Your task to perform on an android device: add a contact in the contacts app Image 0: 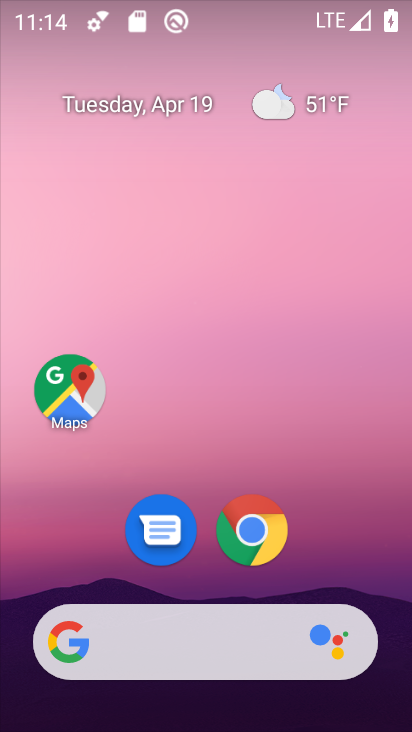
Step 0: drag from (182, 629) to (283, 76)
Your task to perform on an android device: add a contact in the contacts app Image 1: 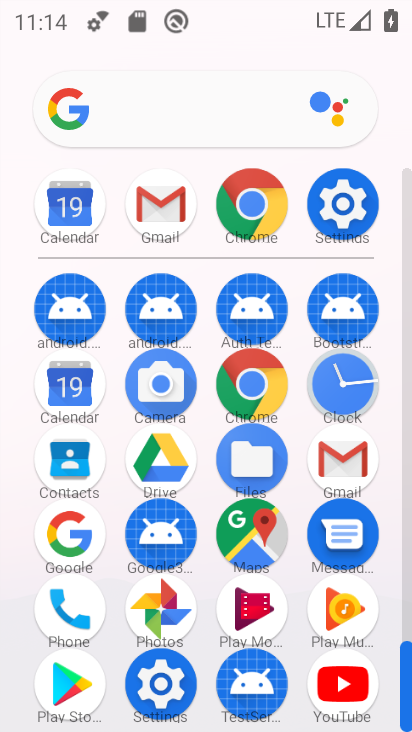
Step 1: click (58, 470)
Your task to perform on an android device: add a contact in the contacts app Image 2: 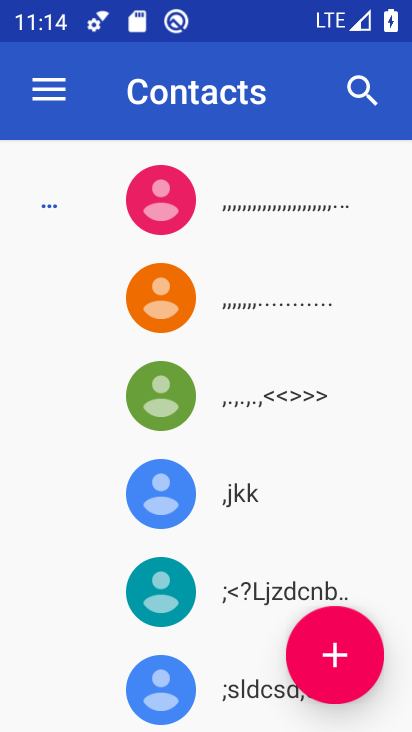
Step 2: click (338, 664)
Your task to perform on an android device: add a contact in the contacts app Image 3: 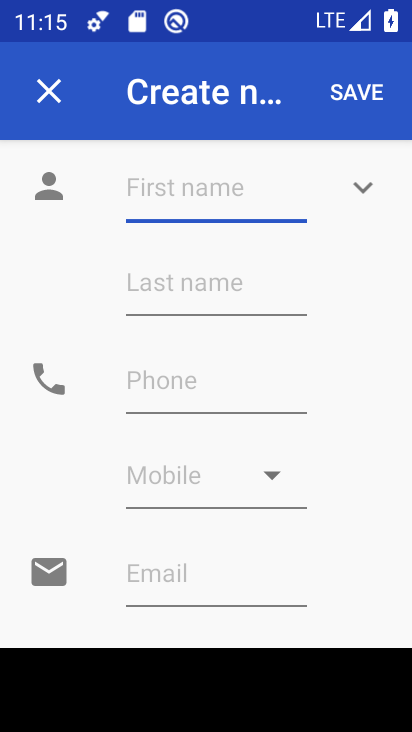
Step 3: type "vfghtyr"
Your task to perform on an android device: add a contact in the contacts app Image 4: 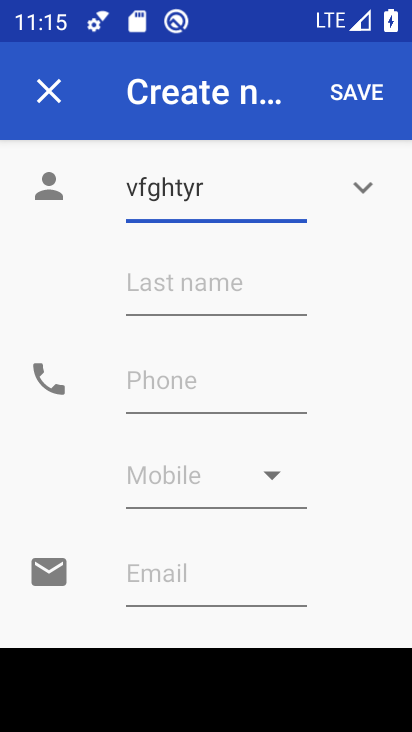
Step 4: click (136, 383)
Your task to perform on an android device: add a contact in the contacts app Image 5: 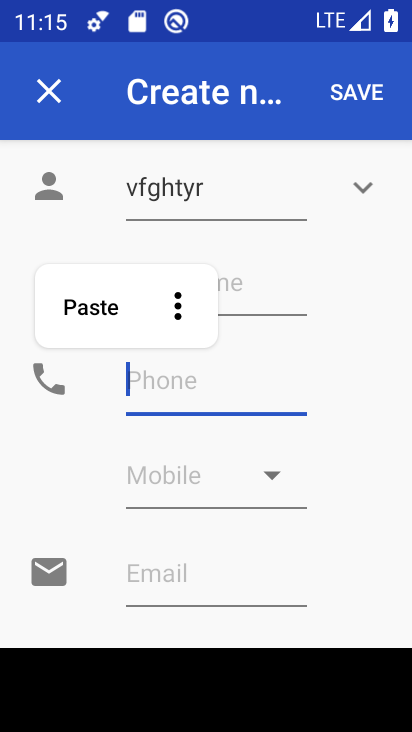
Step 5: type "65987986"
Your task to perform on an android device: add a contact in the contacts app Image 6: 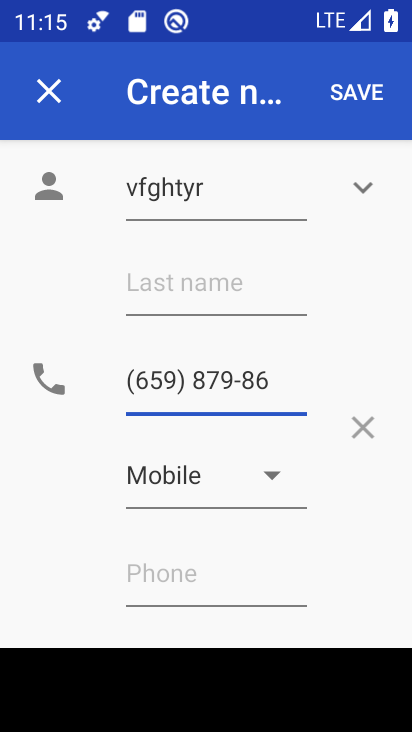
Step 6: click (353, 85)
Your task to perform on an android device: add a contact in the contacts app Image 7: 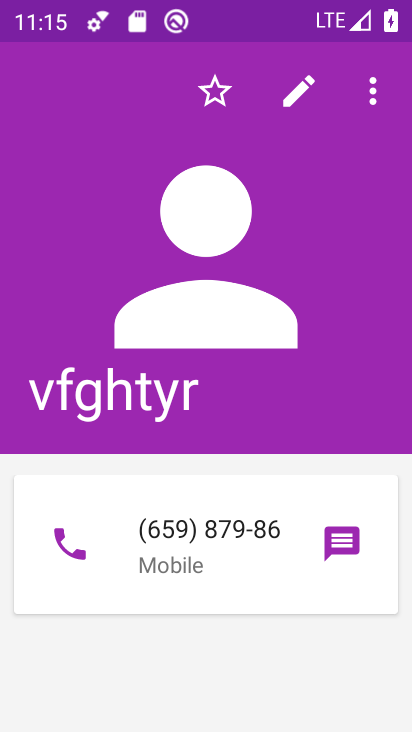
Step 7: task complete